Your task to perform on an android device: turn on priority inbox in the gmail app Image 0: 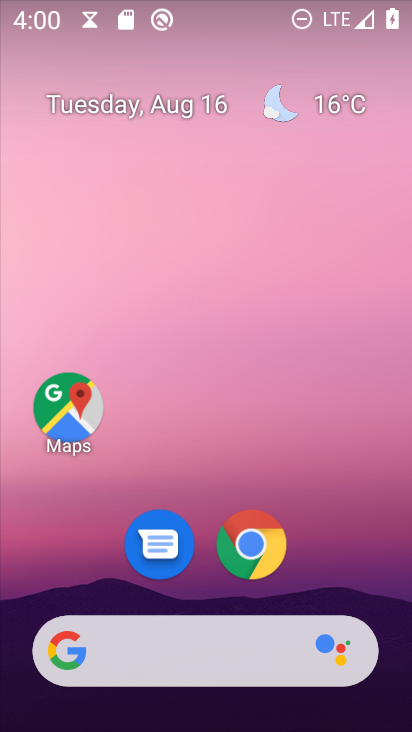
Step 0: drag from (180, 663) to (200, 63)
Your task to perform on an android device: turn on priority inbox in the gmail app Image 1: 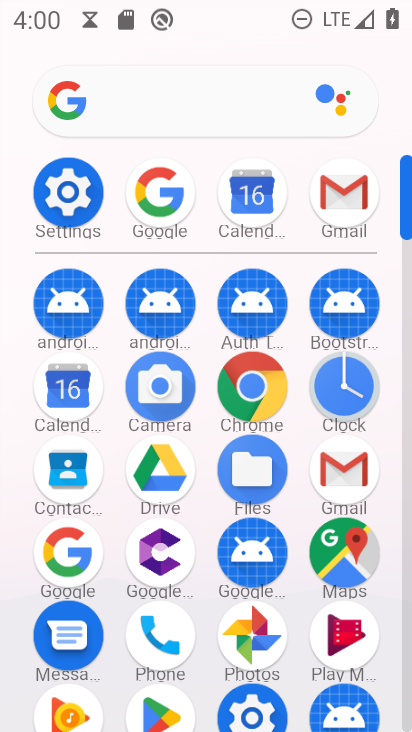
Step 1: click (341, 192)
Your task to perform on an android device: turn on priority inbox in the gmail app Image 2: 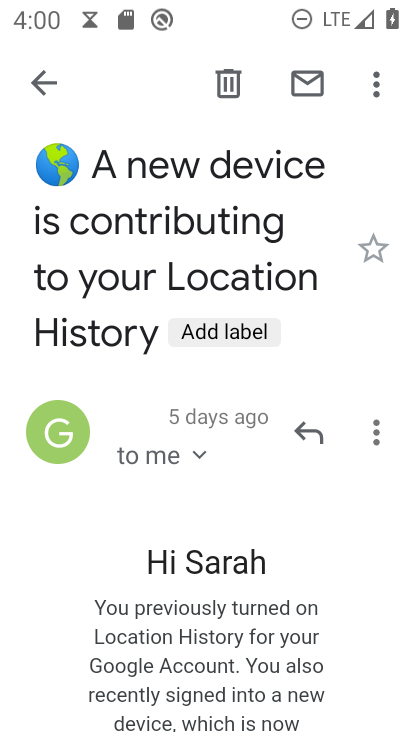
Step 2: press back button
Your task to perform on an android device: turn on priority inbox in the gmail app Image 3: 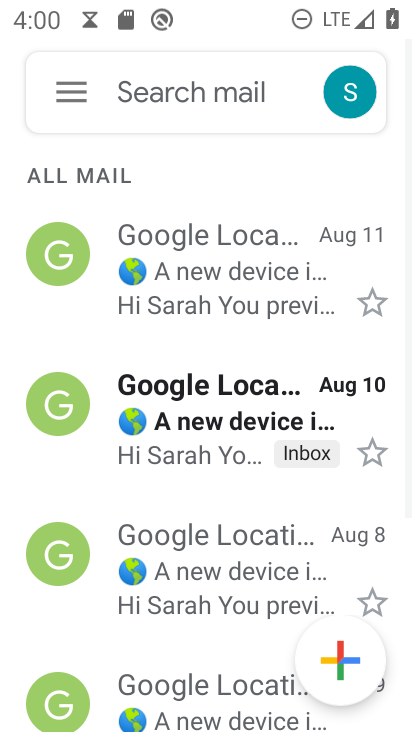
Step 3: click (72, 96)
Your task to perform on an android device: turn on priority inbox in the gmail app Image 4: 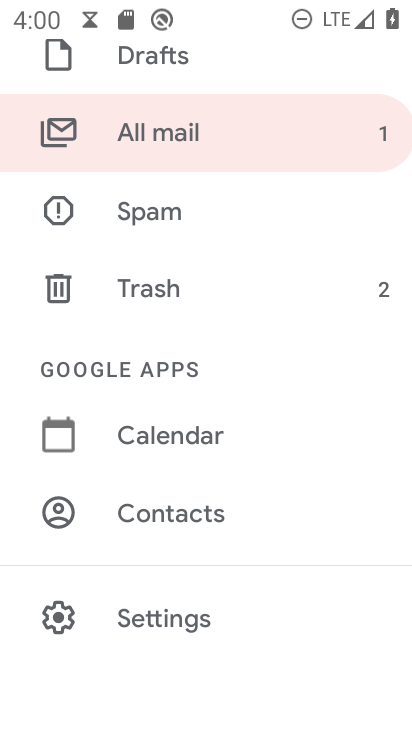
Step 4: click (171, 611)
Your task to perform on an android device: turn on priority inbox in the gmail app Image 5: 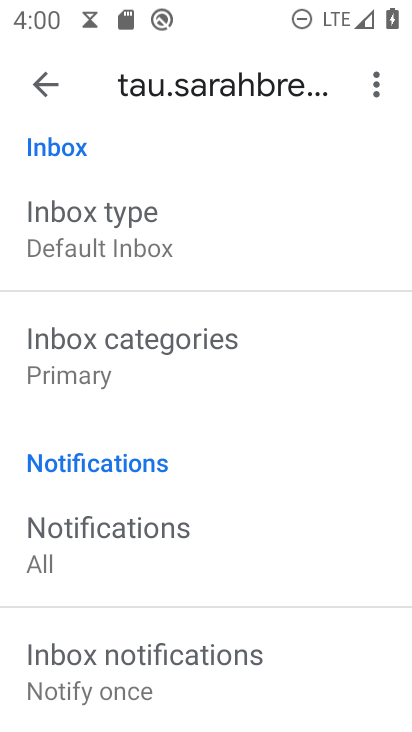
Step 5: drag from (116, 437) to (232, 268)
Your task to perform on an android device: turn on priority inbox in the gmail app Image 6: 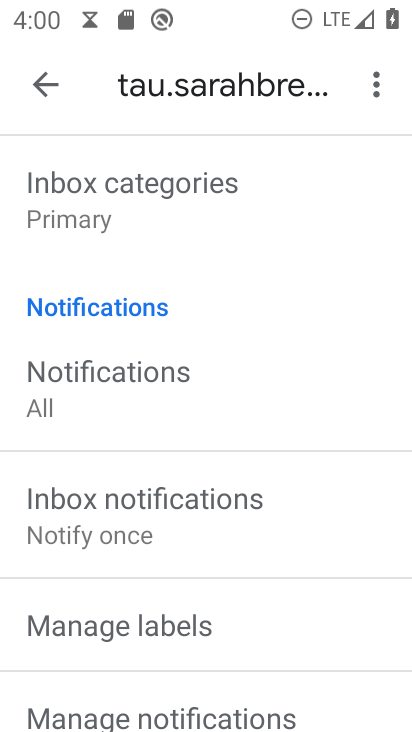
Step 6: drag from (108, 472) to (221, 345)
Your task to perform on an android device: turn on priority inbox in the gmail app Image 7: 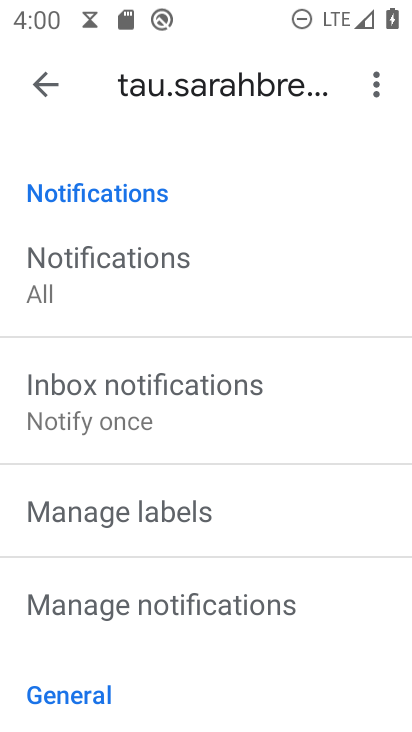
Step 7: drag from (116, 532) to (207, 427)
Your task to perform on an android device: turn on priority inbox in the gmail app Image 8: 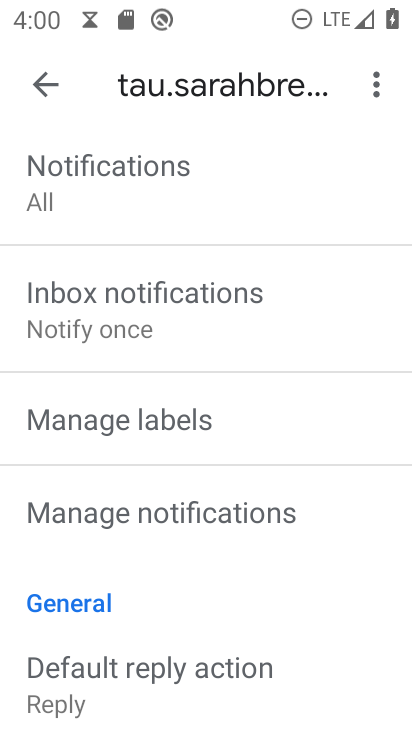
Step 8: drag from (128, 550) to (226, 438)
Your task to perform on an android device: turn on priority inbox in the gmail app Image 9: 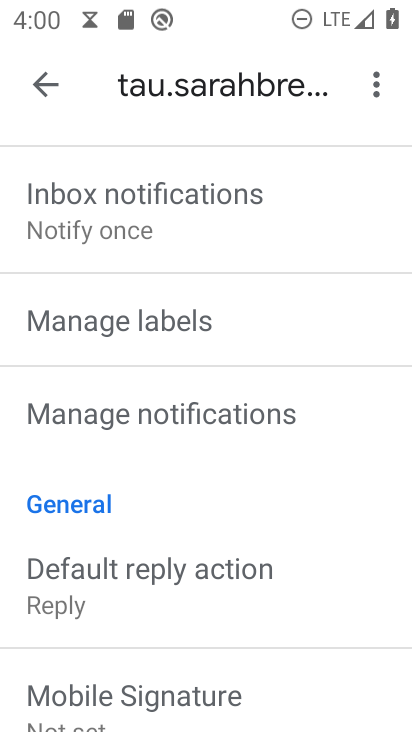
Step 9: drag from (256, 251) to (202, 460)
Your task to perform on an android device: turn on priority inbox in the gmail app Image 10: 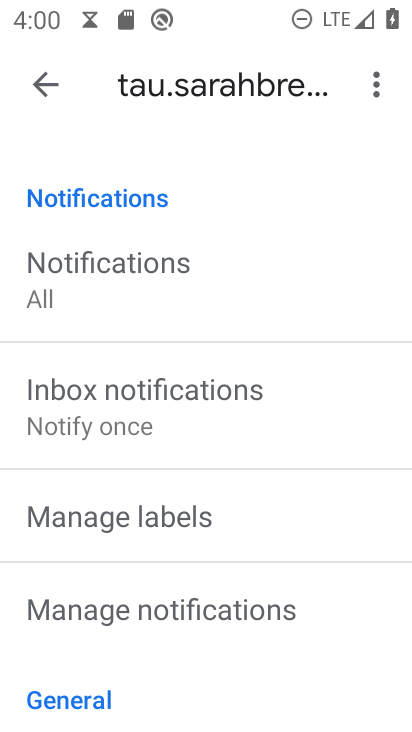
Step 10: drag from (213, 265) to (220, 467)
Your task to perform on an android device: turn on priority inbox in the gmail app Image 11: 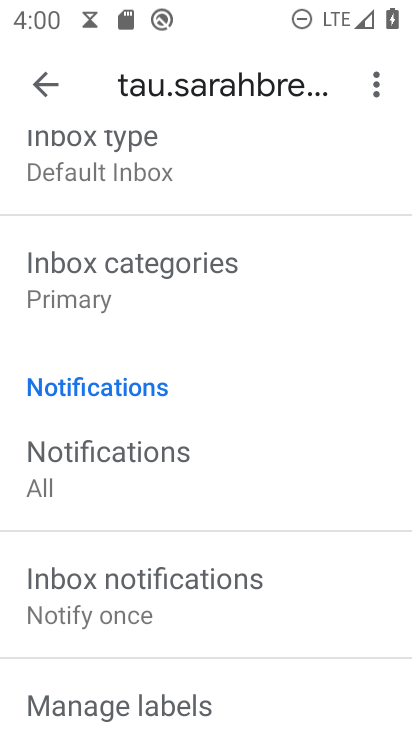
Step 11: drag from (201, 190) to (215, 345)
Your task to perform on an android device: turn on priority inbox in the gmail app Image 12: 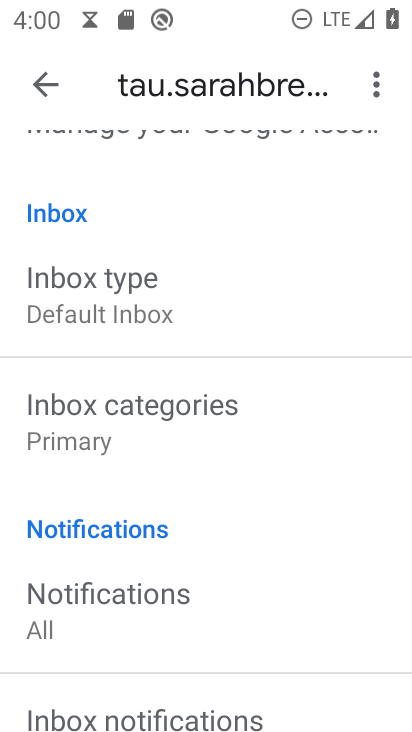
Step 12: click (137, 300)
Your task to perform on an android device: turn on priority inbox in the gmail app Image 13: 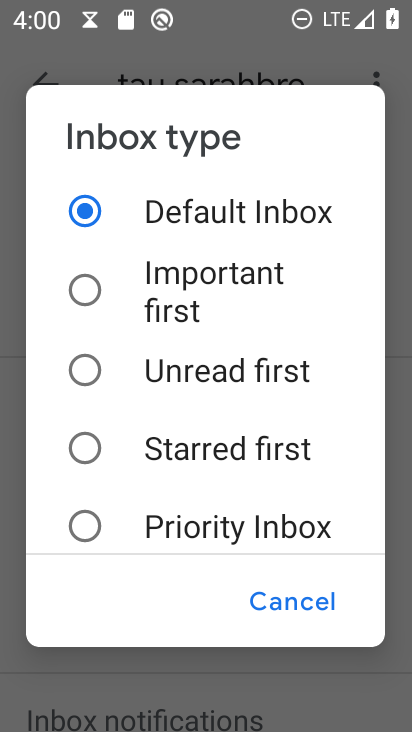
Step 13: click (81, 522)
Your task to perform on an android device: turn on priority inbox in the gmail app Image 14: 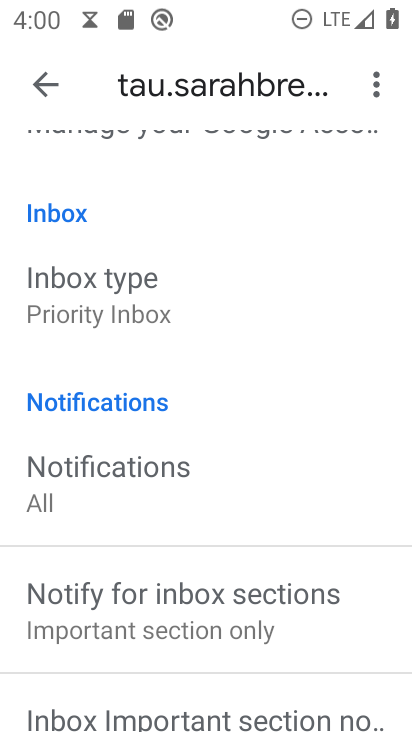
Step 14: task complete